Your task to perform on an android device: What's the weather going to be this weekend? Image 0: 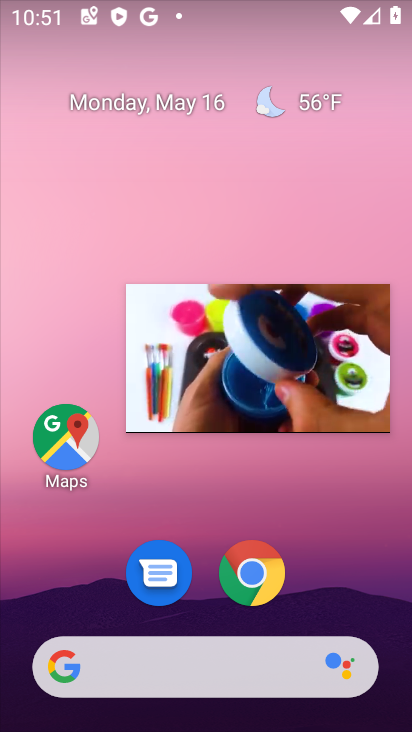
Step 0: drag from (262, 358) to (204, 711)
Your task to perform on an android device: What's the weather going to be this weekend? Image 1: 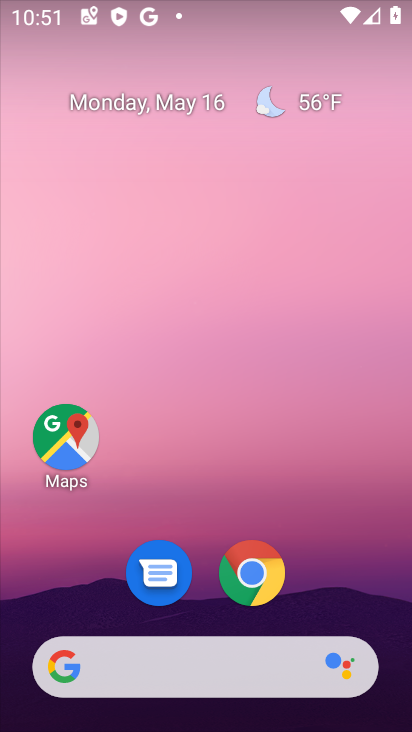
Step 1: click (252, 579)
Your task to perform on an android device: What's the weather going to be this weekend? Image 2: 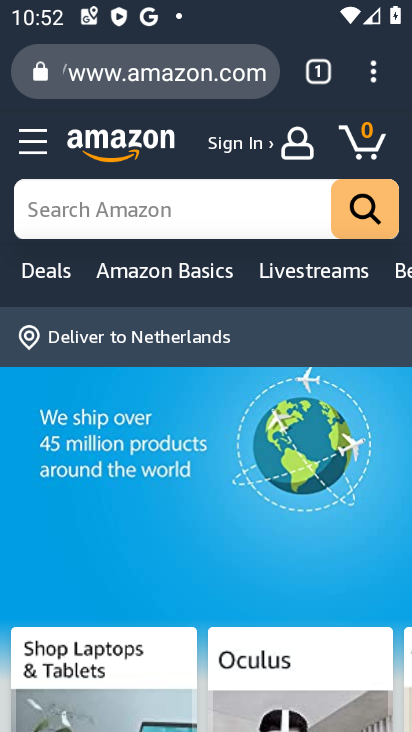
Step 2: press home button
Your task to perform on an android device: What's the weather going to be this weekend? Image 3: 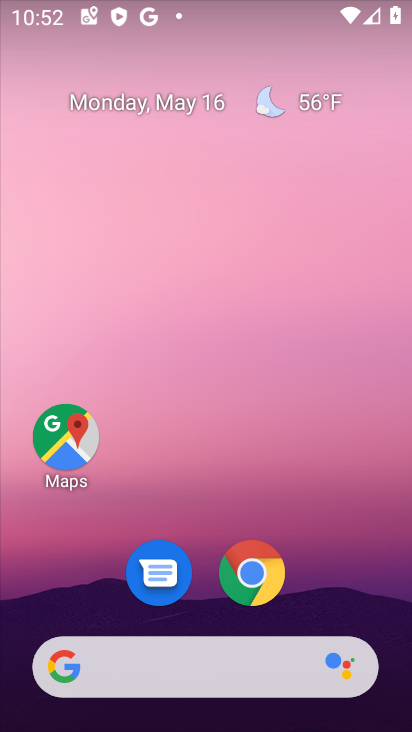
Step 3: click (317, 101)
Your task to perform on an android device: What's the weather going to be this weekend? Image 4: 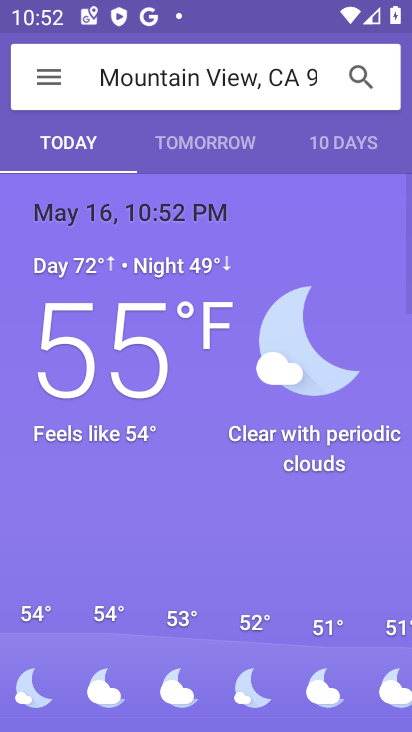
Step 4: click (321, 152)
Your task to perform on an android device: What's the weather going to be this weekend? Image 5: 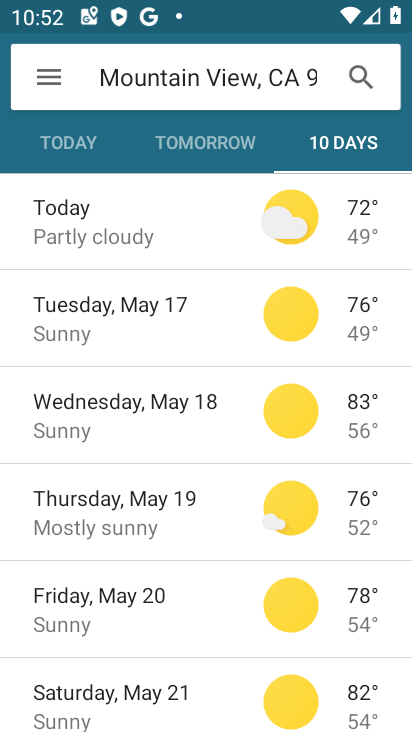
Step 5: task complete